Your task to perform on an android device: check battery use Image 0: 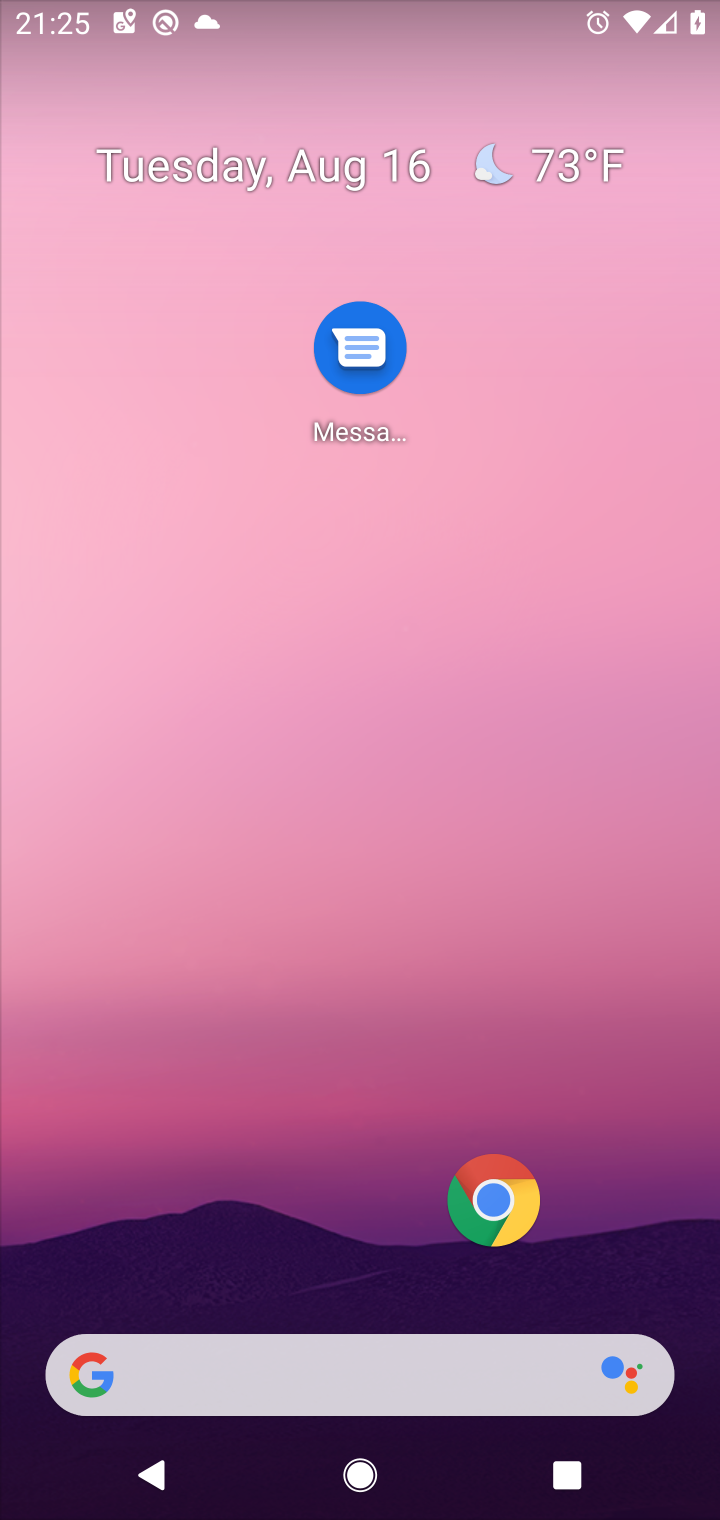
Step 0: drag from (174, 1339) to (515, 692)
Your task to perform on an android device: check battery use Image 1: 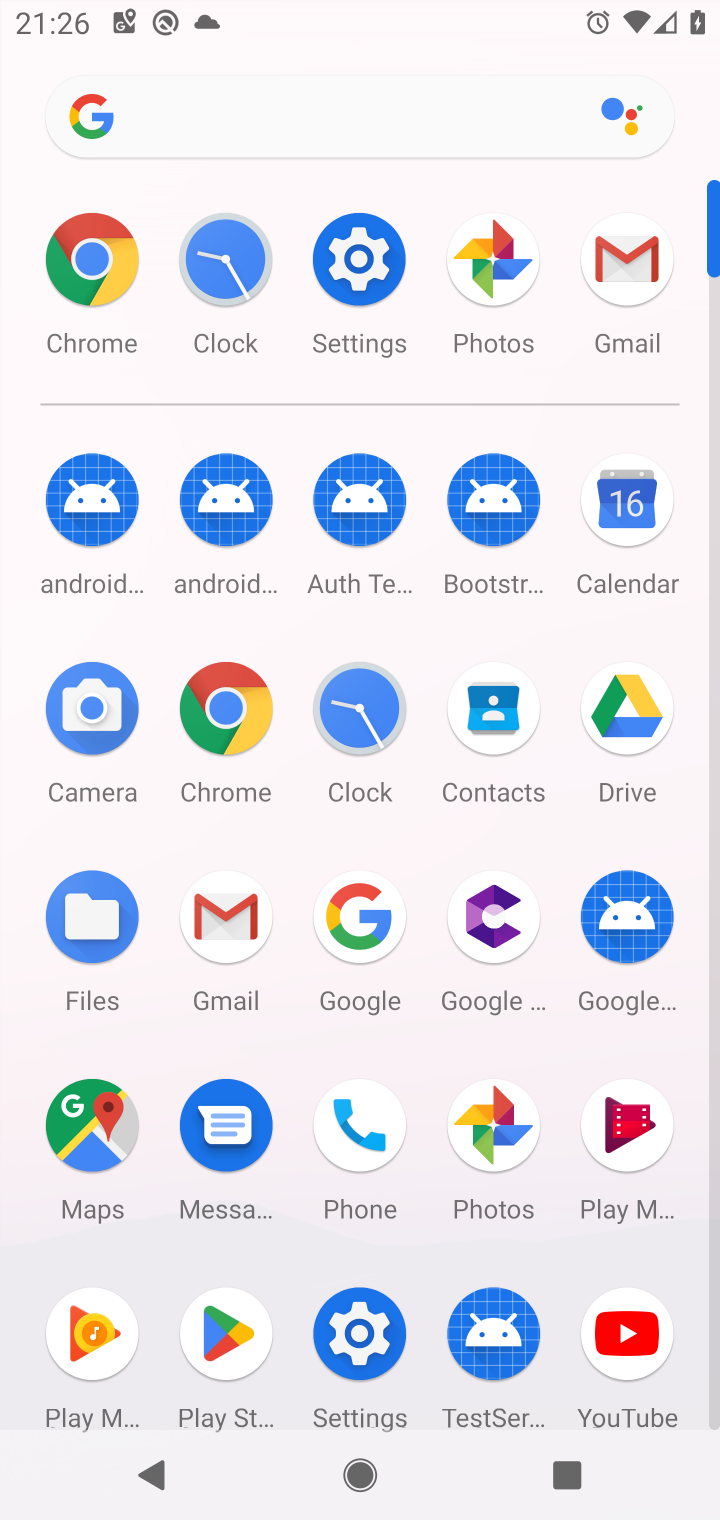
Step 1: click (369, 1370)
Your task to perform on an android device: check battery use Image 2: 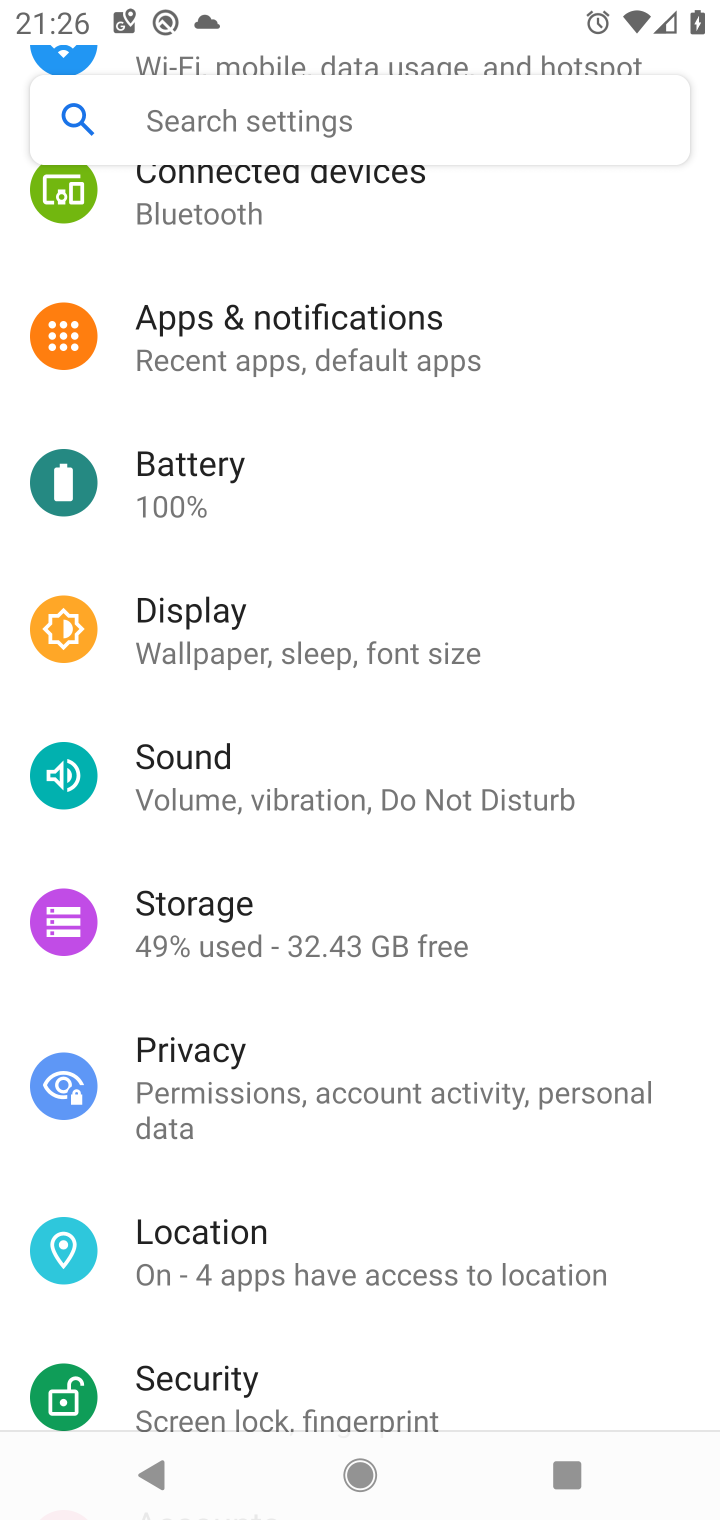
Step 2: click (191, 482)
Your task to perform on an android device: check battery use Image 3: 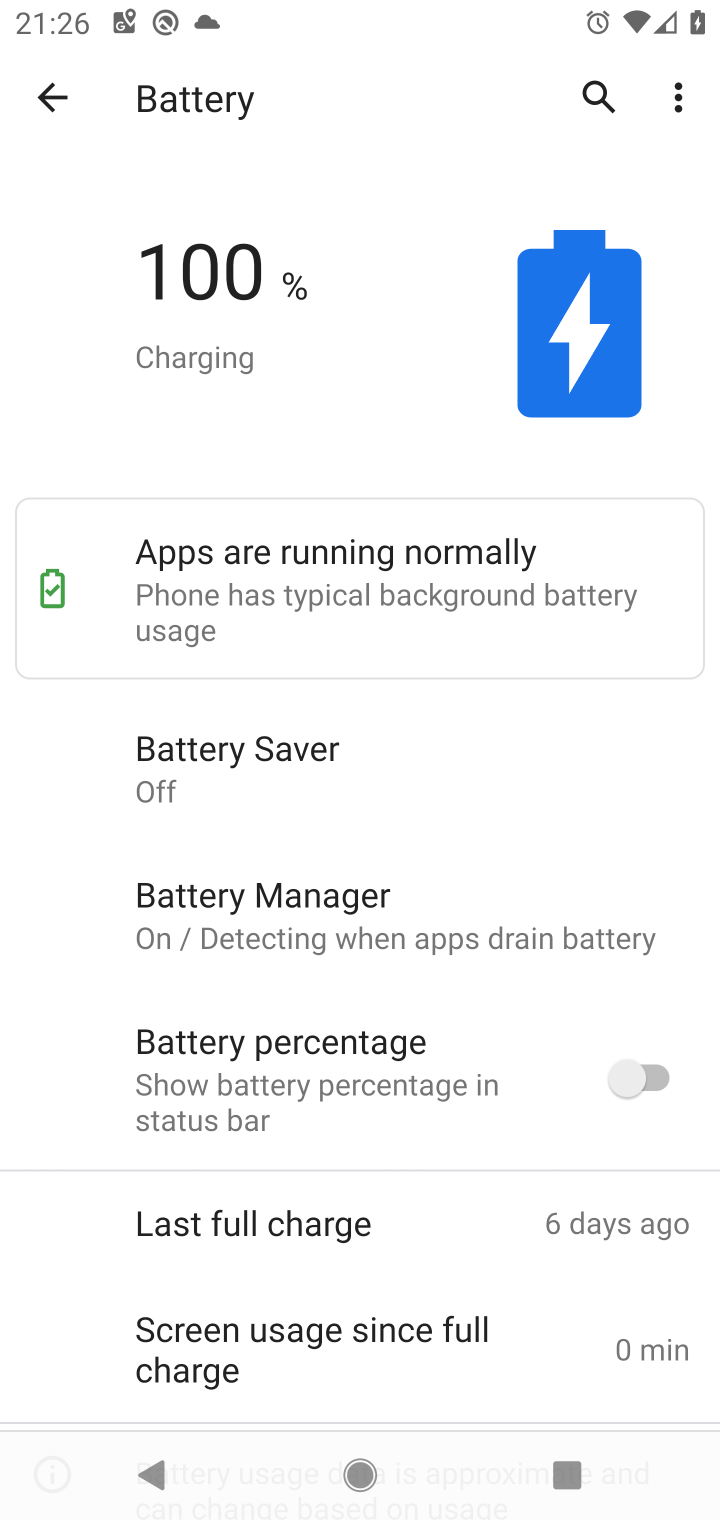
Step 3: task complete